Your task to perform on an android device: turn on sleep mode Image 0: 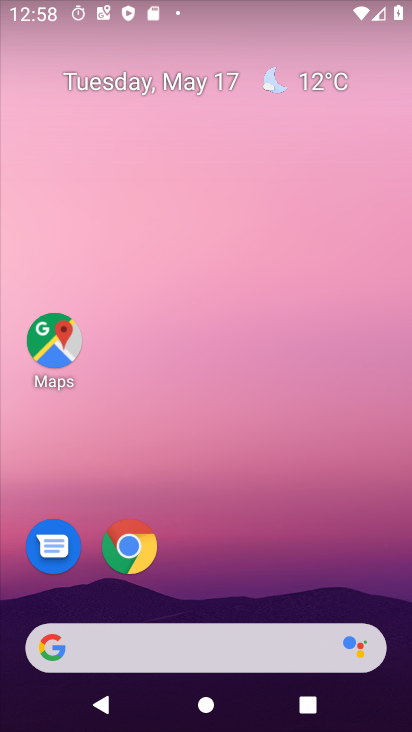
Step 0: drag from (174, 642) to (319, 89)
Your task to perform on an android device: turn on sleep mode Image 1: 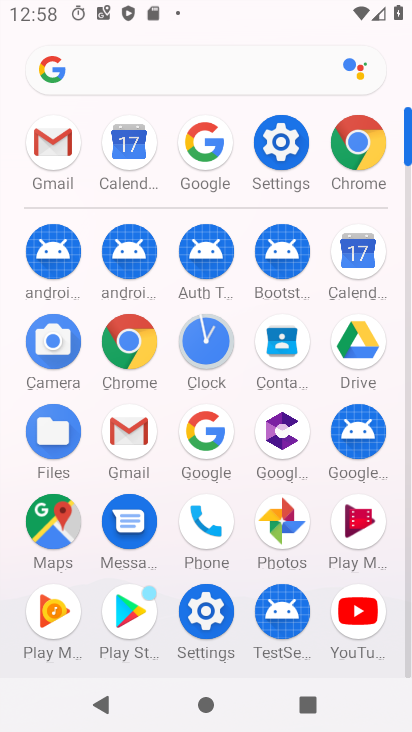
Step 1: click (285, 137)
Your task to perform on an android device: turn on sleep mode Image 2: 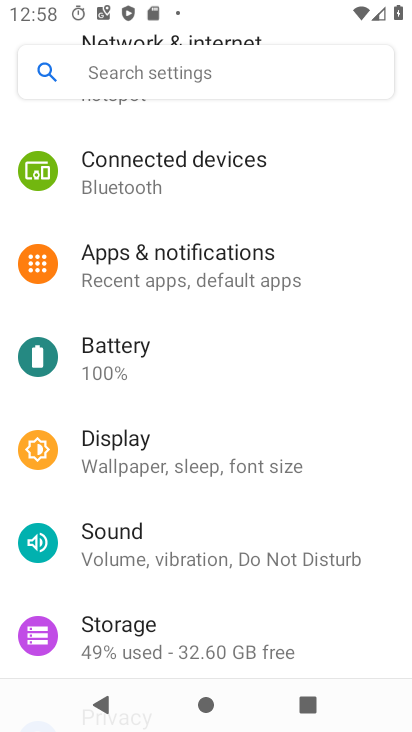
Step 2: click (215, 465)
Your task to perform on an android device: turn on sleep mode Image 3: 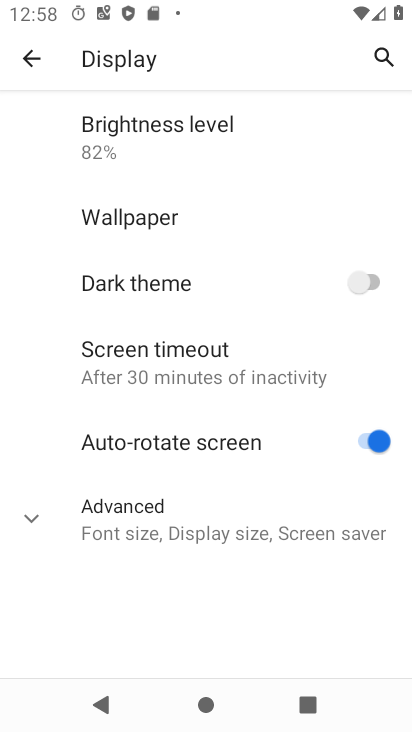
Step 3: task complete